Your task to perform on an android device: Open Android settings Image 0: 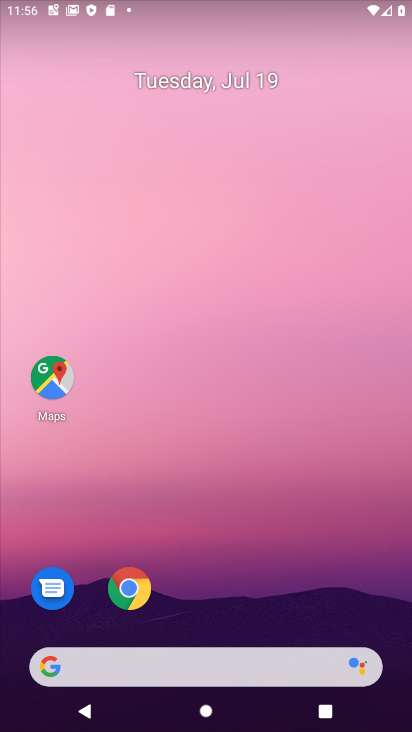
Step 0: drag from (396, 708) to (297, 14)
Your task to perform on an android device: Open Android settings Image 1: 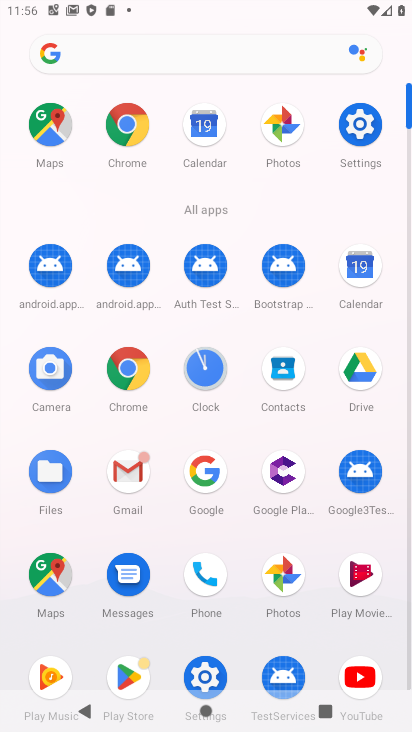
Step 1: click (340, 118)
Your task to perform on an android device: Open Android settings Image 2: 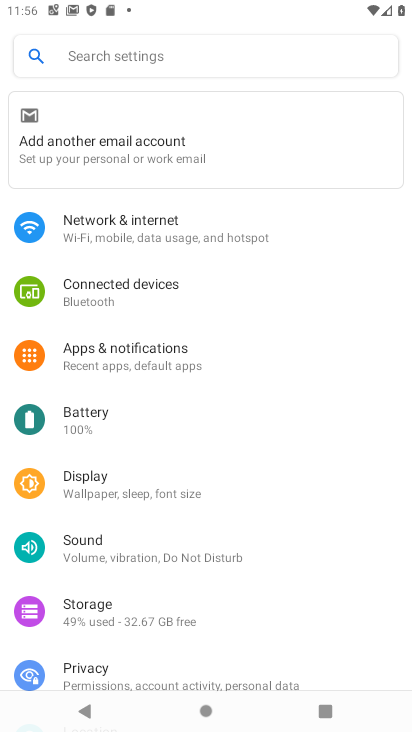
Step 2: task complete